Your task to perform on an android device: stop showing notifications on the lock screen Image 0: 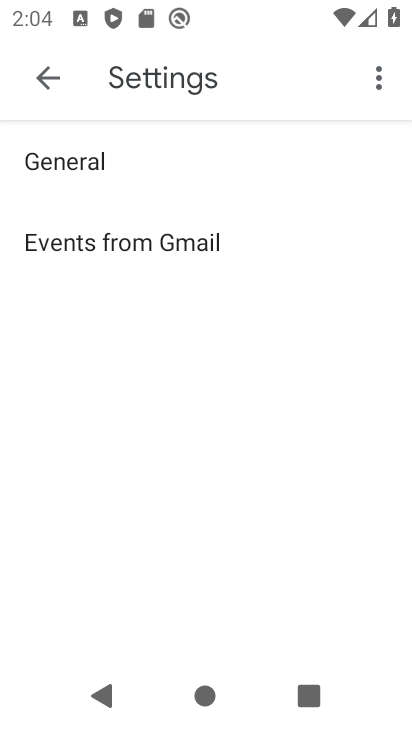
Step 0: press home button
Your task to perform on an android device: stop showing notifications on the lock screen Image 1: 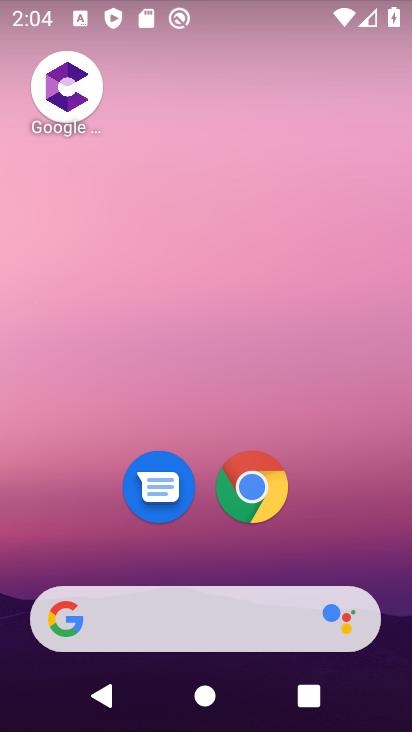
Step 1: drag from (201, 400) to (246, 3)
Your task to perform on an android device: stop showing notifications on the lock screen Image 2: 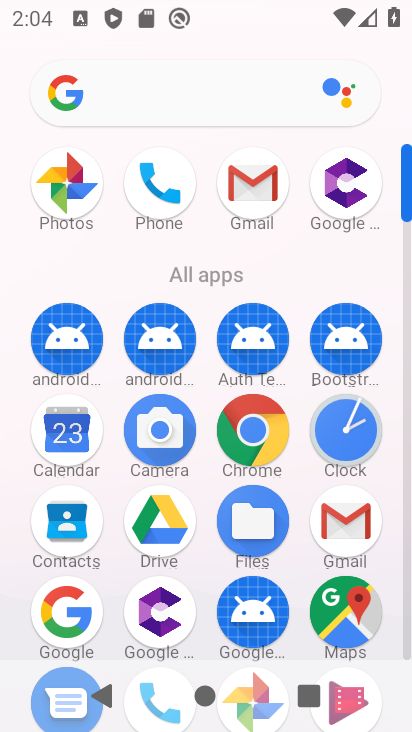
Step 2: drag from (197, 539) to (269, 10)
Your task to perform on an android device: stop showing notifications on the lock screen Image 3: 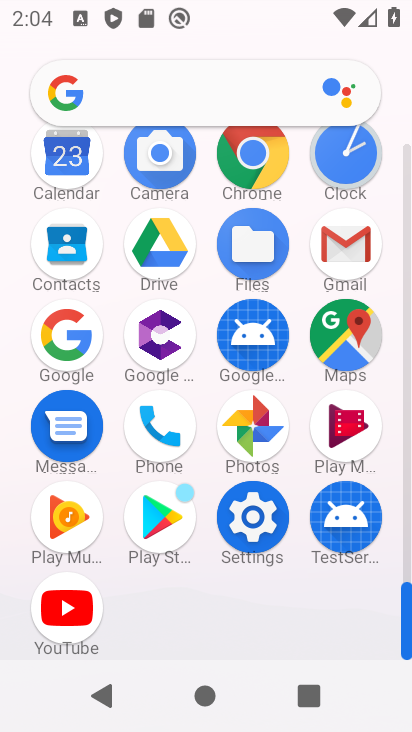
Step 3: click (261, 500)
Your task to perform on an android device: stop showing notifications on the lock screen Image 4: 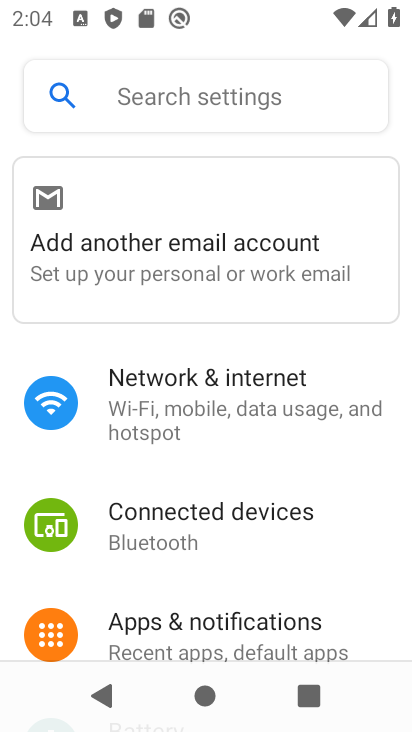
Step 4: drag from (282, 568) to (236, 115)
Your task to perform on an android device: stop showing notifications on the lock screen Image 5: 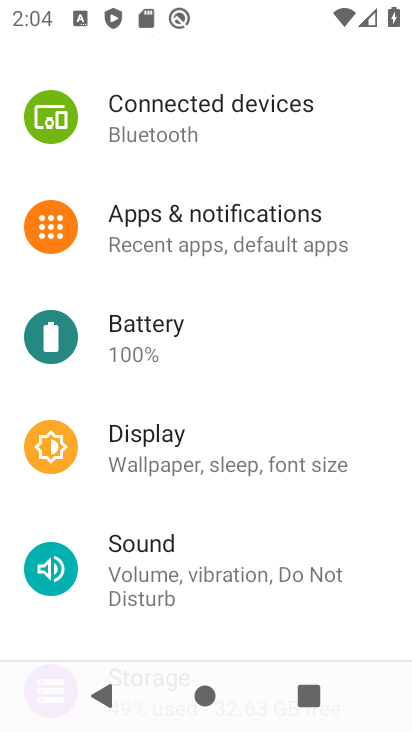
Step 5: click (229, 455)
Your task to perform on an android device: stop showing notifications on the lock screen Image 6: 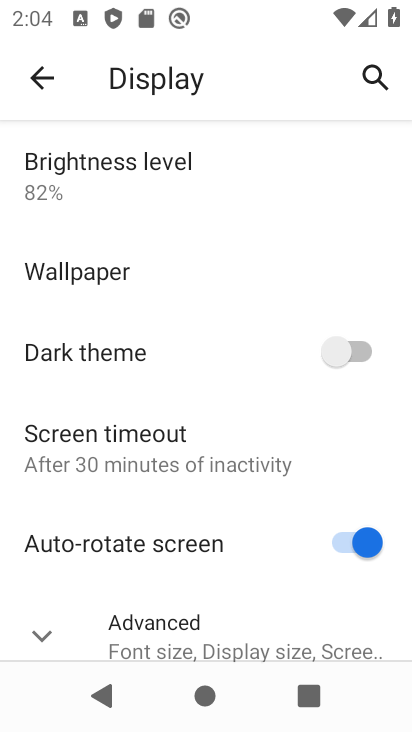
Step 6: click (43, 633)
Your task to perform on an android device: stop showing notifications on the lock screen Image 7: 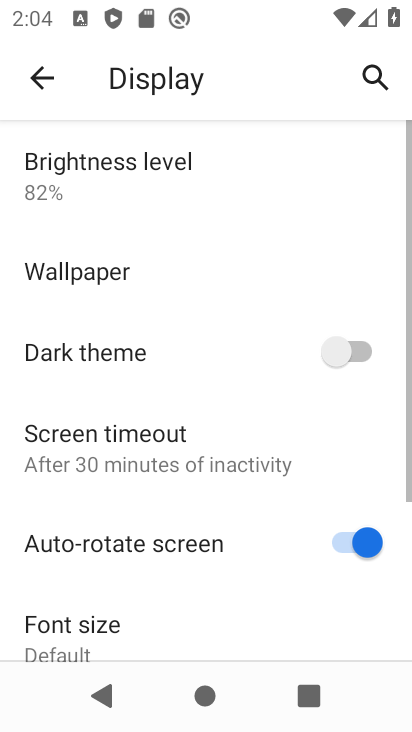
Step 7: drag from (209, 600) to (208, 125)
Your task to perform on an android device: stop showing notifications on the lock screen Image 8: 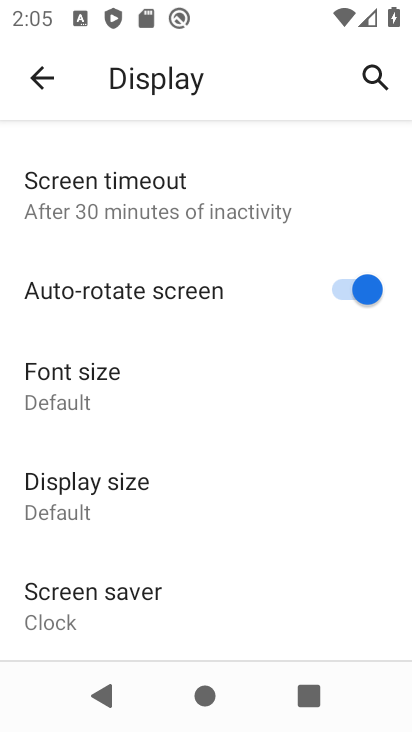
Step 8: click (192, 490)
Your task to perform on an android device: stop showing notifications on the lock screen Image 9: 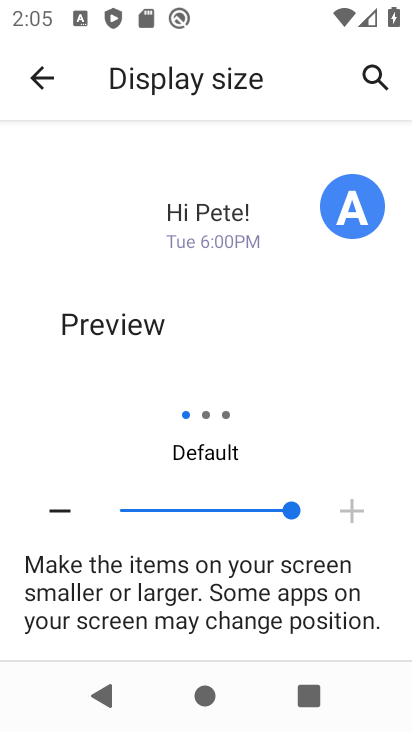
Step 9: click (59, 501)
Your task to perform on an android device: stop showing notifications on the lock screen Image 10: 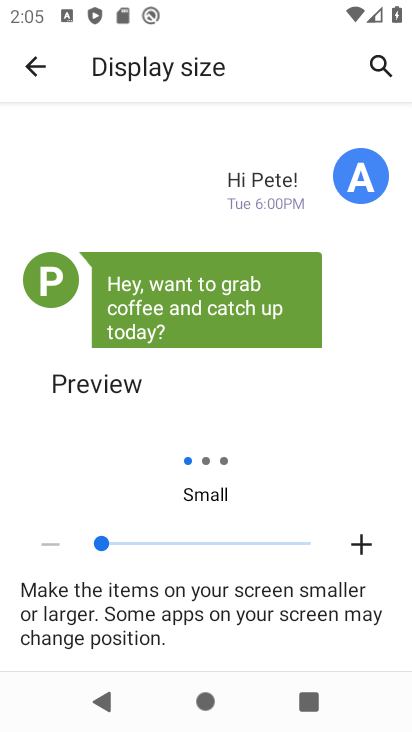
Step 10: click (43, 52)
Your task to perform on an android device: stop showing notifications on the lock screen Image 11: 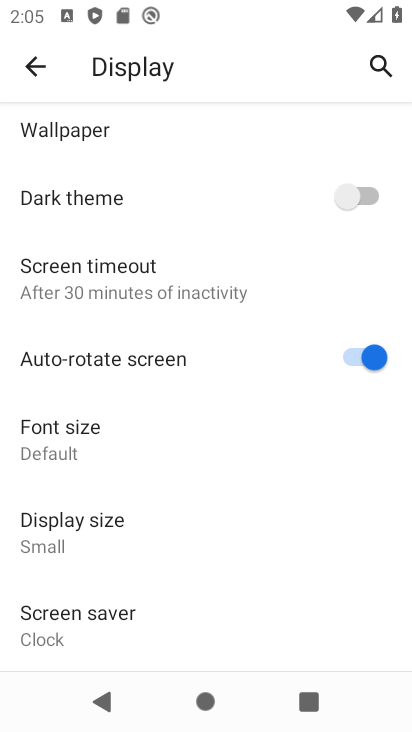
Step 11: click (39, 57)
Your task to perform on an android device: stop showing notifications on the lock screen Image 12: 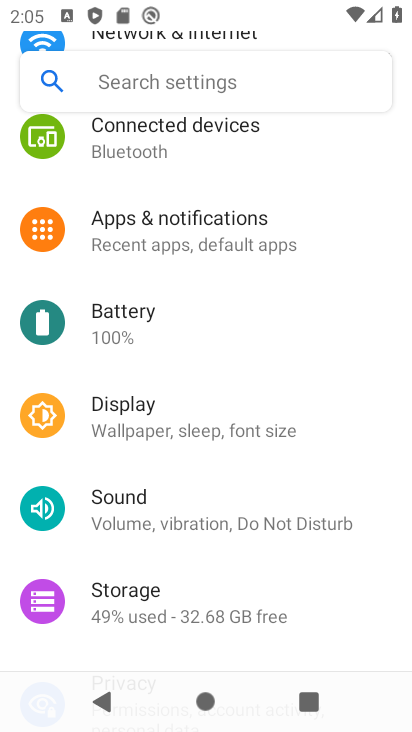
Step 12: click (217, 228)
Your task to perform on an android device: stop showing notifications on the lock screen Image 13: 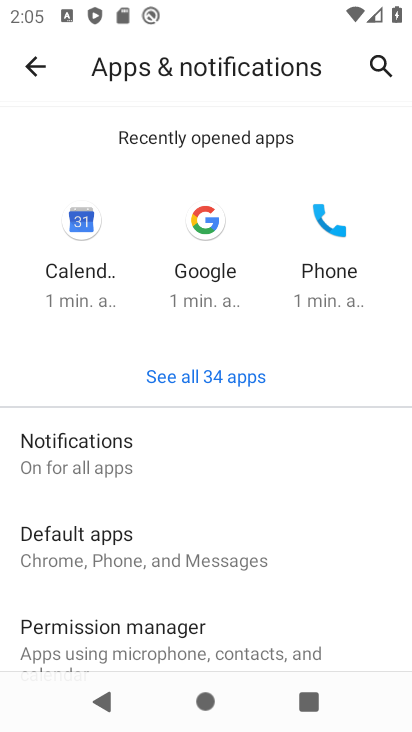
Step 13: drag from (216, 495) to (236, 165)
Your task to perform on an android device: stop showing notifications on the lock screen Image 14: 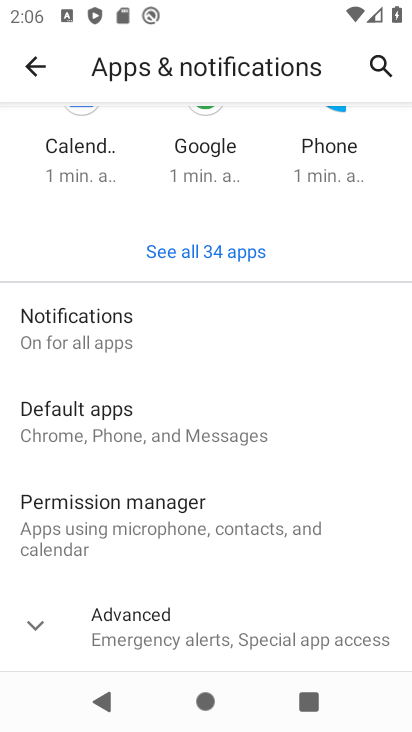
Step 14: click (169, 331)
Your task to perform on an android device: stop showing notifications on the lock screen Image 15: 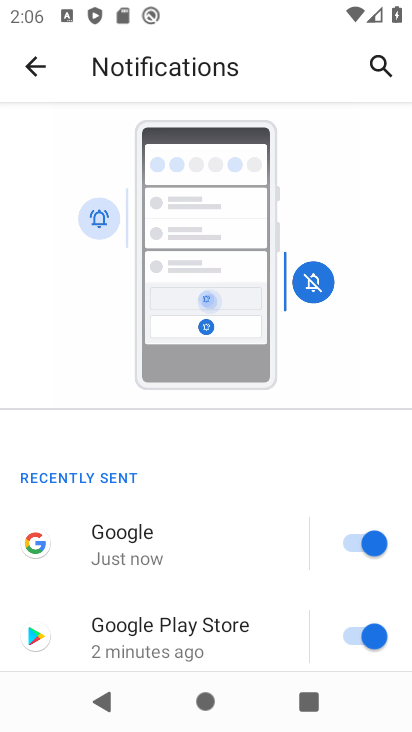
Step 15: drag from (236, 532) to (277, 216)
Your task to perform on an android device: stop showing notifications on the lock screen Image 16: 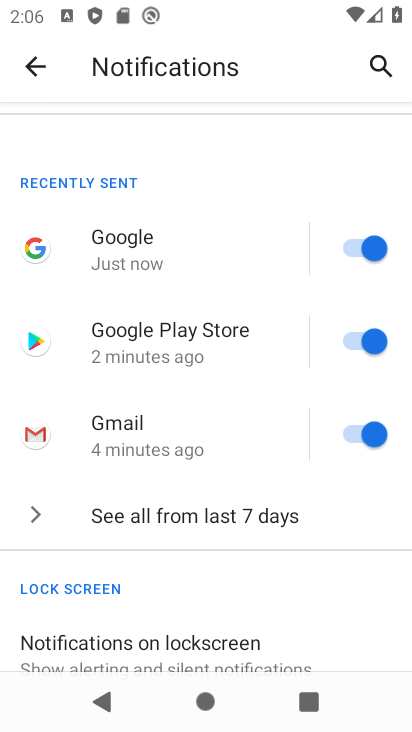
Step 16: drag from (227, 569) to (263, 311)
Your task to perform on an android device: stop showing notifications on the lock screen Image 17: 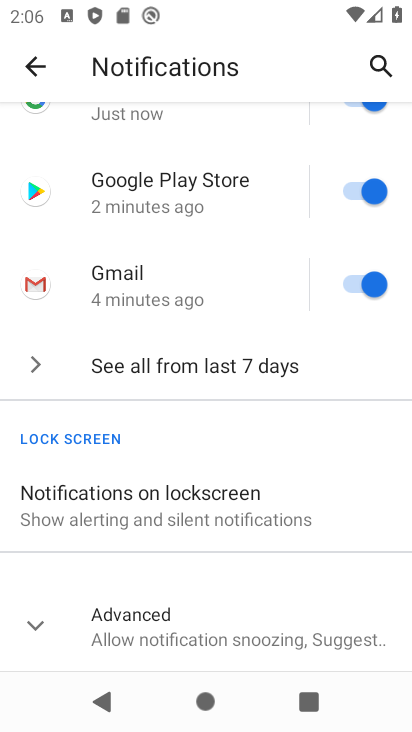
Step 17: click (225, 506)
Your task to perform on an android device: stop showing notifications on the lock screen Image 18: 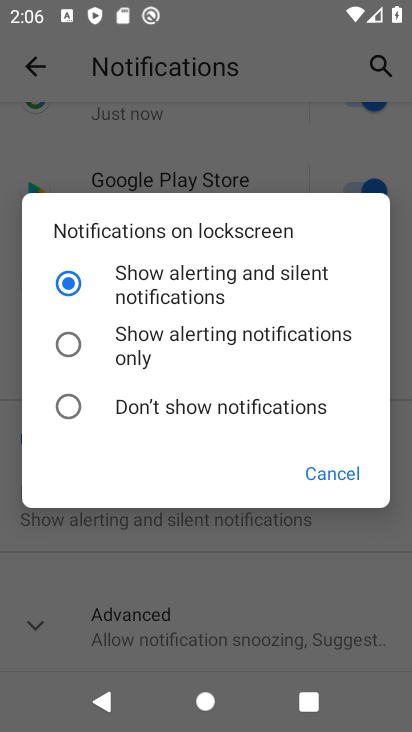
Step 18: click (73, 400)
Your task to perform on an android device: stop showing notifications on the lock screen Image 19: 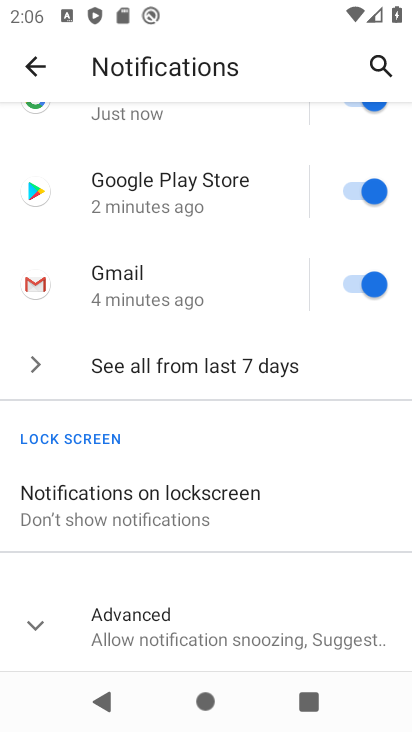
Step 19: task complete